Your task to perform on an android device: check out phone information Image 0: 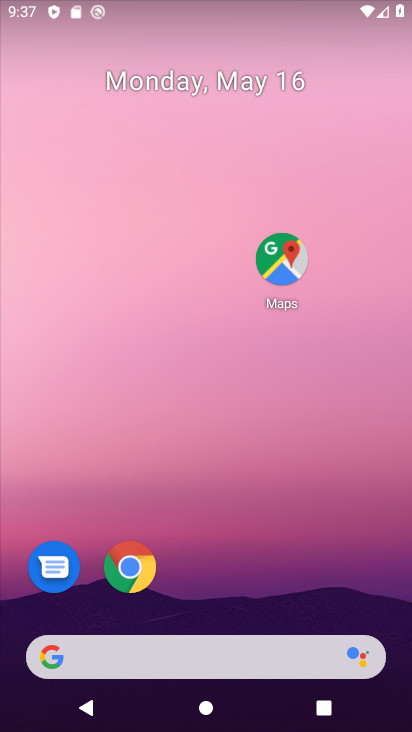
Step 0: drag from (216, 588) to (177, 113)
Your task to perform on an android device: check out phone information Image 1: 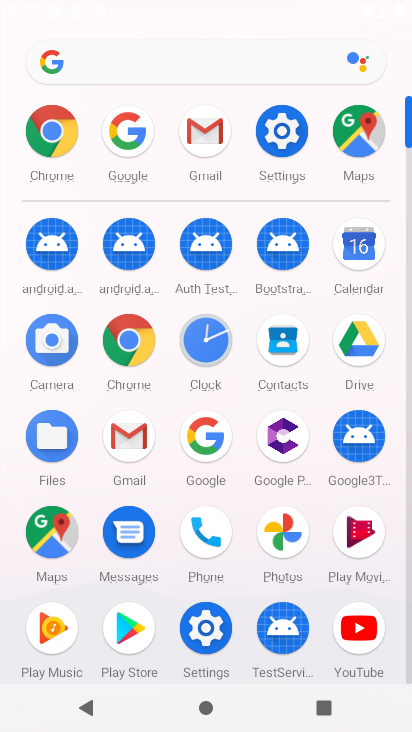
Step 1: drag from (241, 473) to (246, 89)
Your task to perform on an android device: check out phone information Image 2: 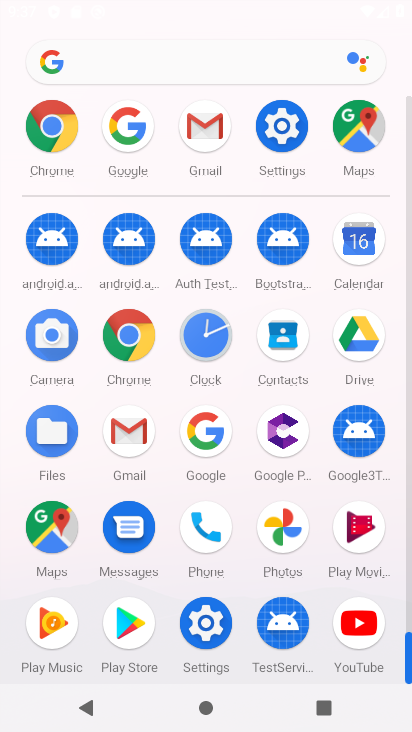
Step 2: click (207, 633)
Your task to perform on an android device: check out phone information Image 3: 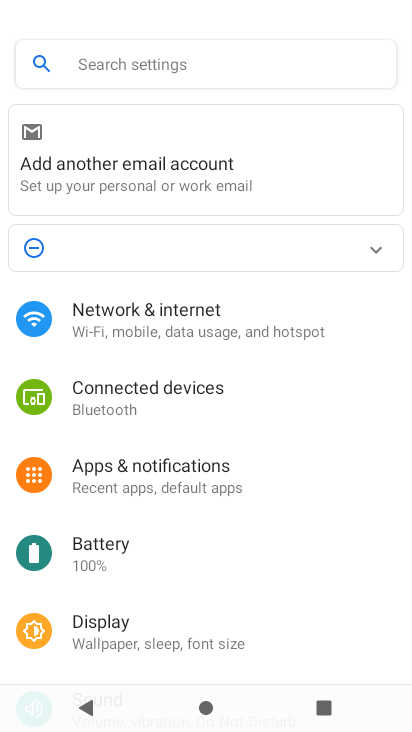
Step 3: drag from (182, 553) to (207, 93)
Your task to perform on an android device: check out phone information Image 4: 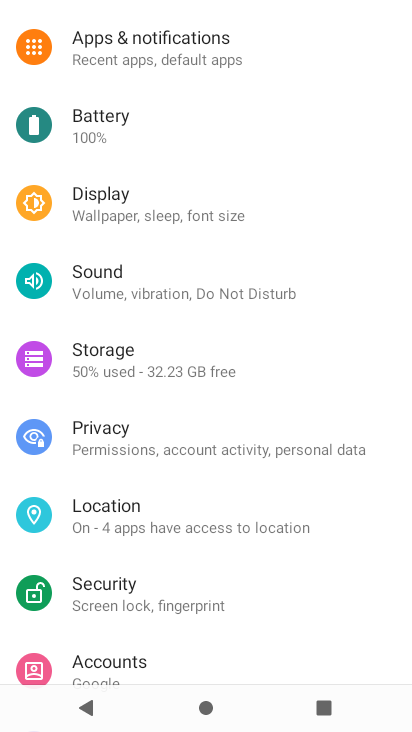
Step 4: drag from (227, 515) to (202, 43)
Your task to perform on an android device: check out phone information Image 5: 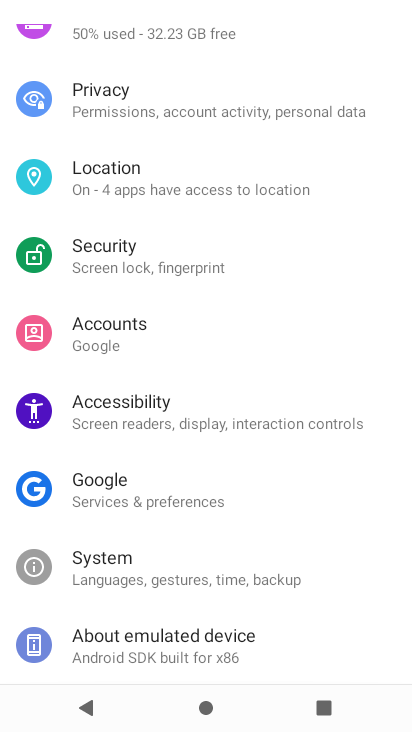
Step 5: drag from (182, 579) to (190, 285)
Your task to perform on an android device: check out phone information Image 6: 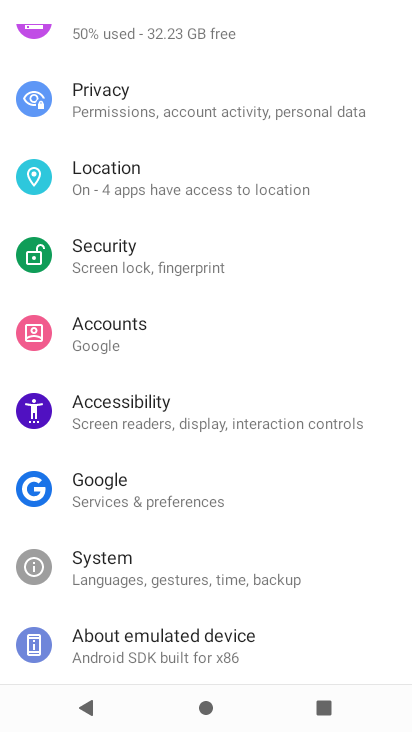
Step 6: click (151, 644)
Your task to perform on an android device: check out phone information Image 7: 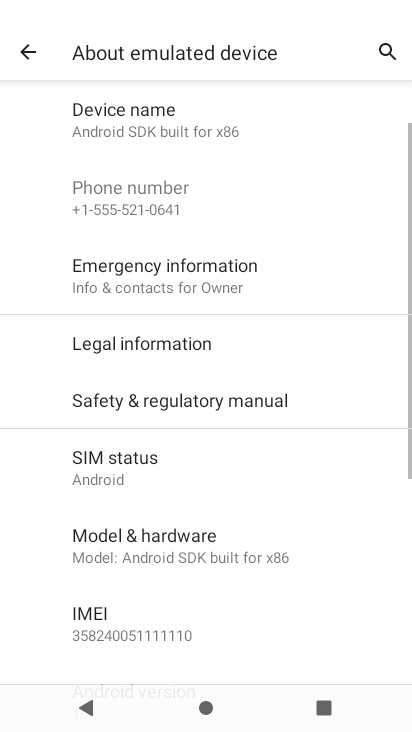
Step 7: task complete